Your task to perform on an android device: Open privacy settings Image 0: 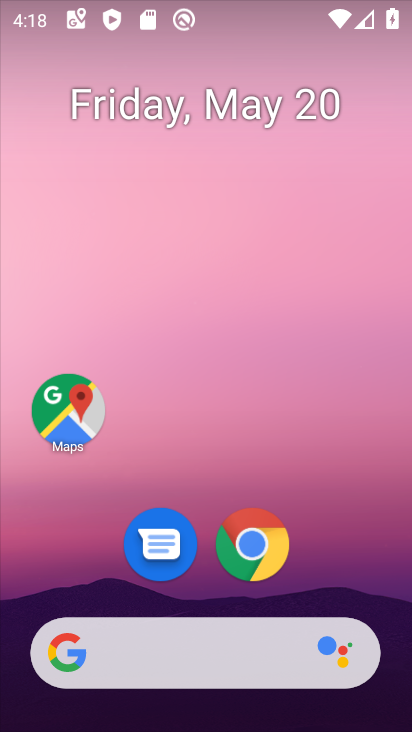
Step 0: drag from (361, 612) to (406, 510)
Your task to perform on an android device: Open privacy settings Image 1: 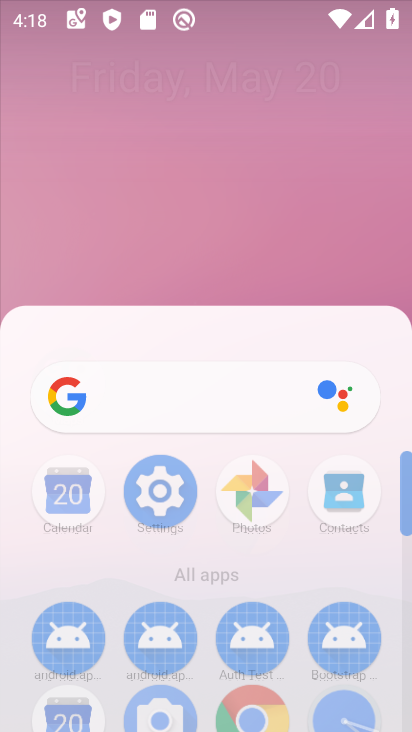
Step 1: drag from (364, 486) to (405, 306)
Your task to perform on an android device: Open privacy settings Image 2: 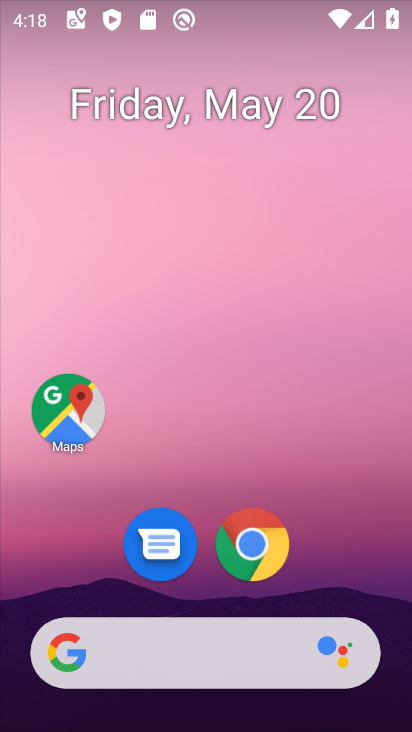
Step 2: drag from (328, 575) to (403, 431)
Your task to perform on an android device: Open privacy settings Image 3: 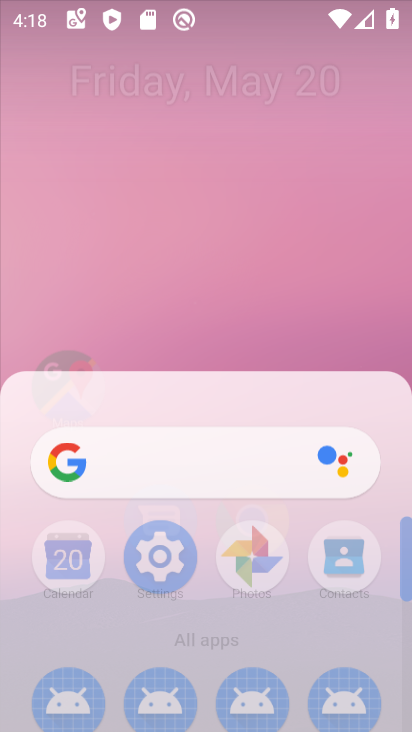
Step 3: drag from (357, 609) to (410, 337)
Your task to perform on an android device: Open privacy settings Image 4: 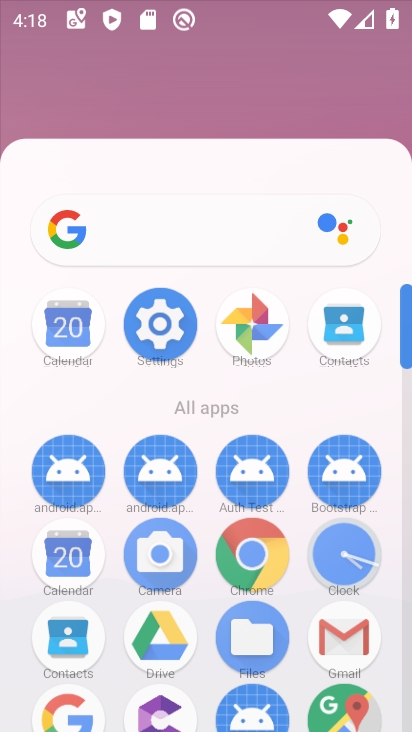
Step 4: drag from (368, 555) to (408, 53)
Your task to perform on an android device: Open privacy settings Image 5: 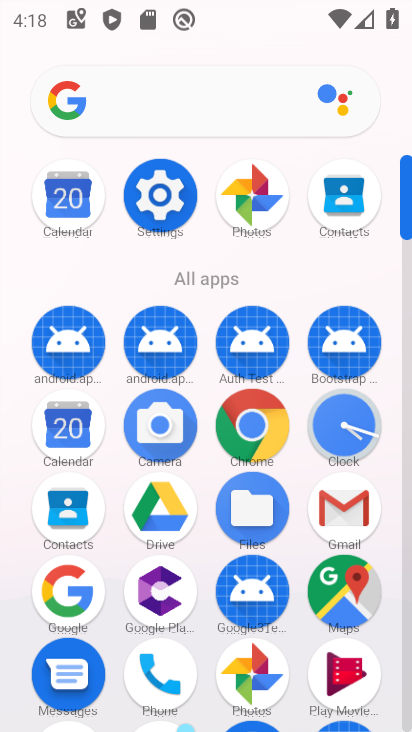
Step 5: click (158, 199)
Your task to perform on an android device: Open privacy settings Image 6: 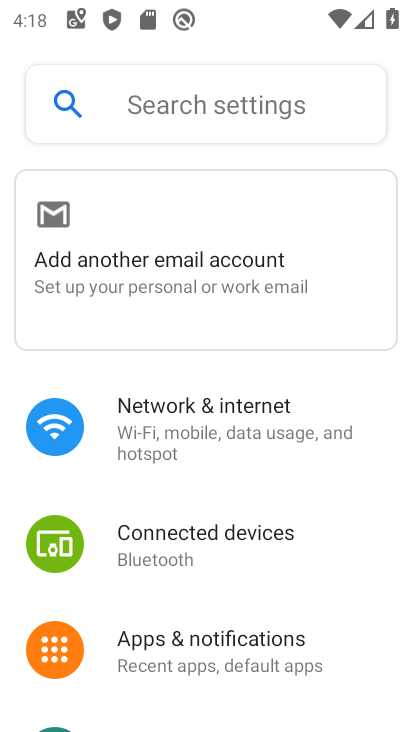
Step 6: drag from (216, 496) to (260, 121)
Your task to perform on an android device: Open privacy settings Image 7: 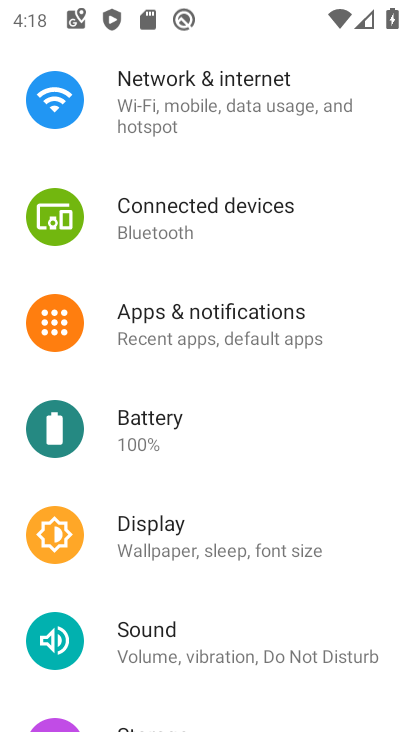
Step 7: drag from (231, 551) to (264, 233)
Your task to perform on an android device: Open privacy settings Image 8: 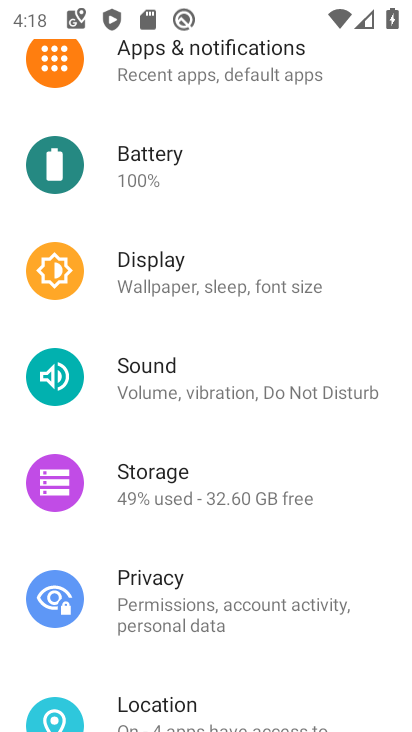
Step 8: click (162, 594)
Your task to perform on an android device: Open privacy settings Image 9: 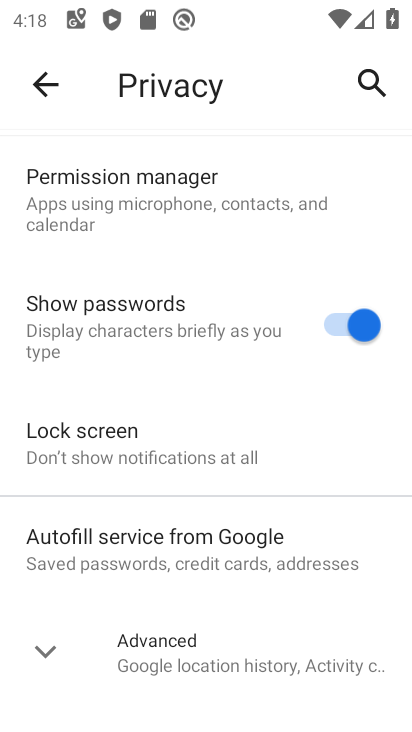
Step 9: task complete